Your task to perform on an android device: move a message to another label in the gmail app Image 0: 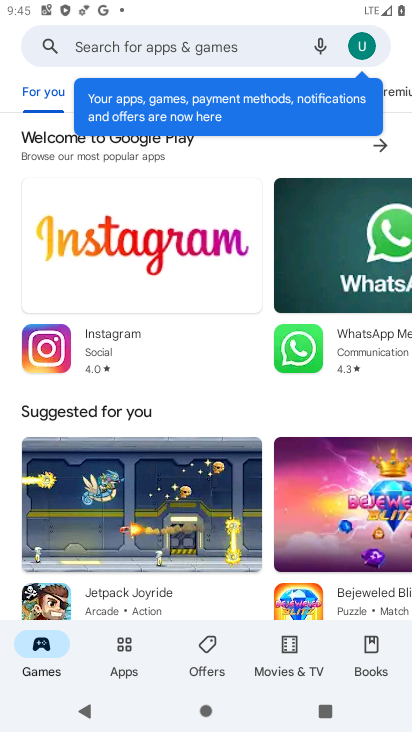
Step 0: press home button
Your task to perform on an android device: move a message to another label in the gmail app Image 1: 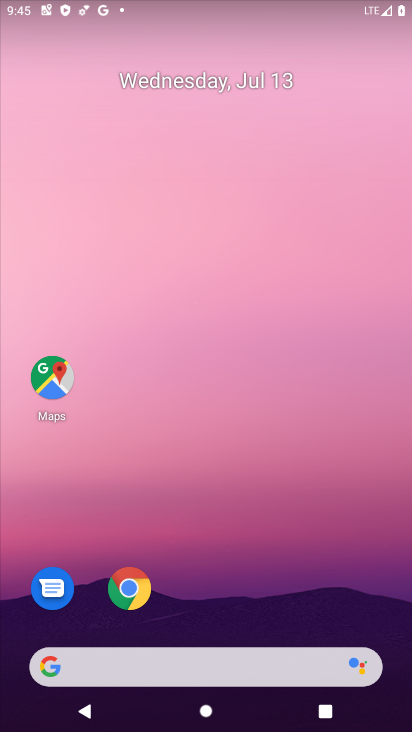
Step 1: drag from (254, 607) to (269, 68)
Your task to perform on an android device: move a message to another label in the gmail app Image 2: 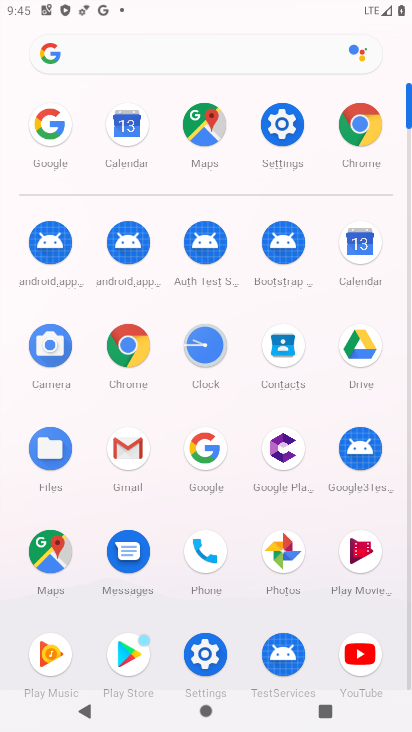
Step 2: click (128, 451)
Your task to perform on an android device: move a message to another label in the gmail app Image 3: 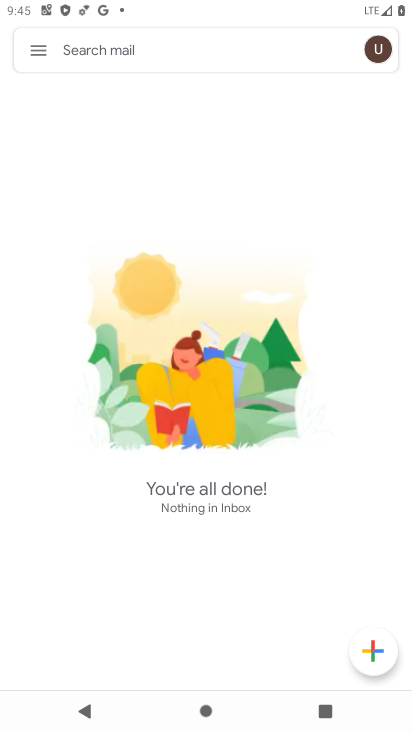
Step 3: click (32, 50)
Your task to perform on an android device: move a message to another label in the gmail app Image 4: 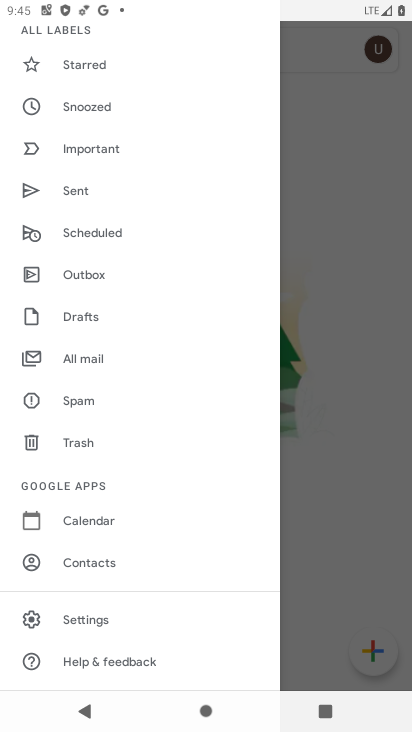
Step 4: click (81, 365)
Your task to perform on an android device: move a message to another label in the gmail app Image 5: 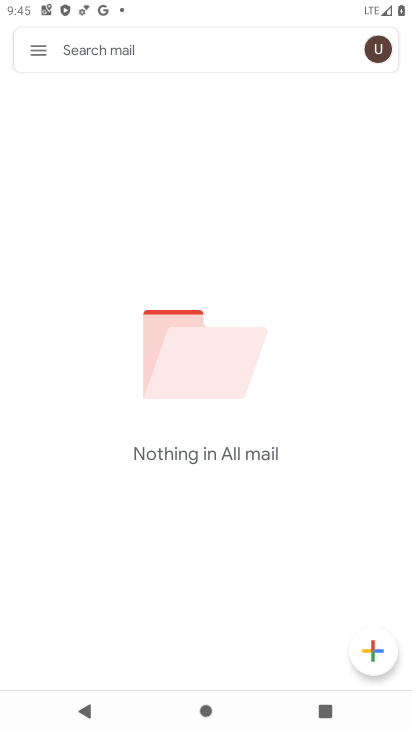
Step 5: task complete